Your task to perform on an android device: Open internet settings Image 0: 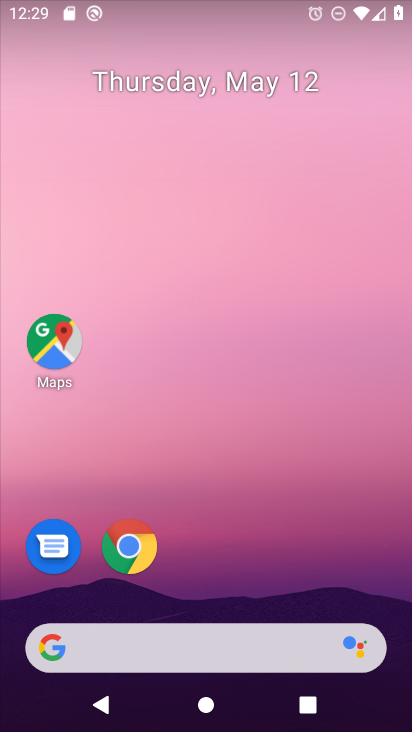
Step 0: drag from (381, 600) to (289, 68)
Your task to perform on an android device: Open internet settings Image 1: 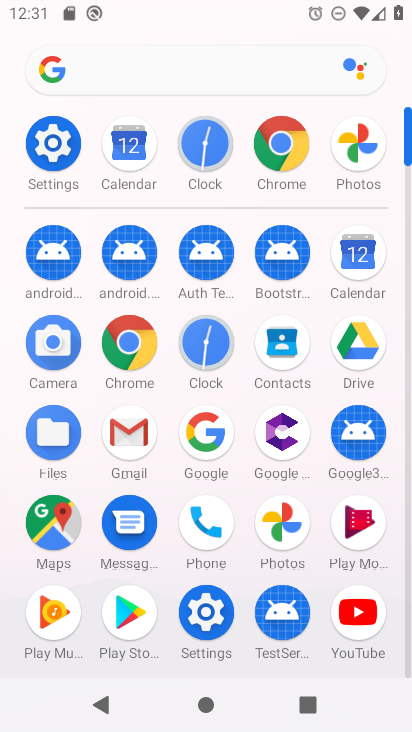
Step 1: click (216, 612)
Your task to perform on an android device: Open internet settings Image 2: 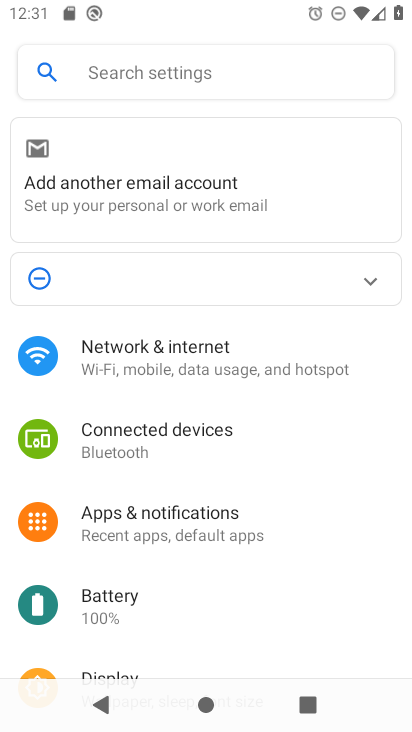
Step 2: task complete